Your task to perform on an android device: toggle javascript in the chrome app Image 0: 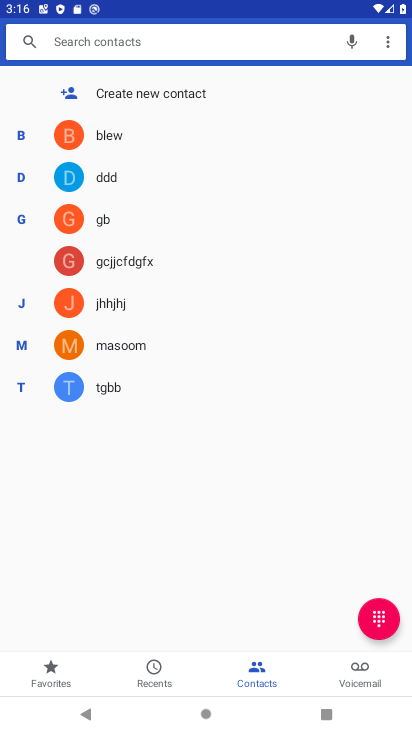
Step 0: press home button
Your task to perform on an android device: toggle javascript in the chrome app Image 1: 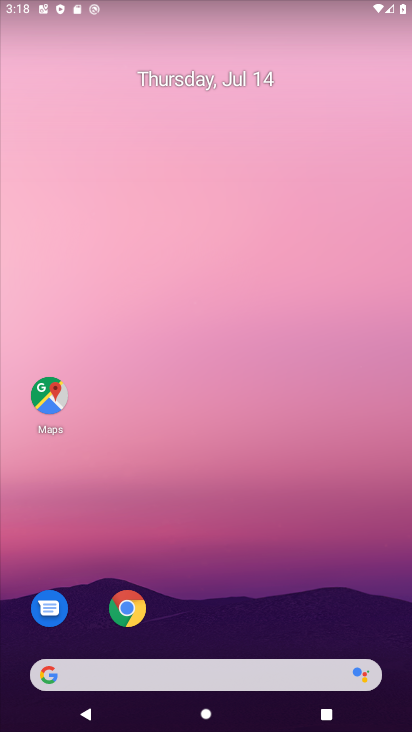
Step 1: click (104, 610)
Your task to perform on an android device: toggle javascript in the chrome app Image 2: 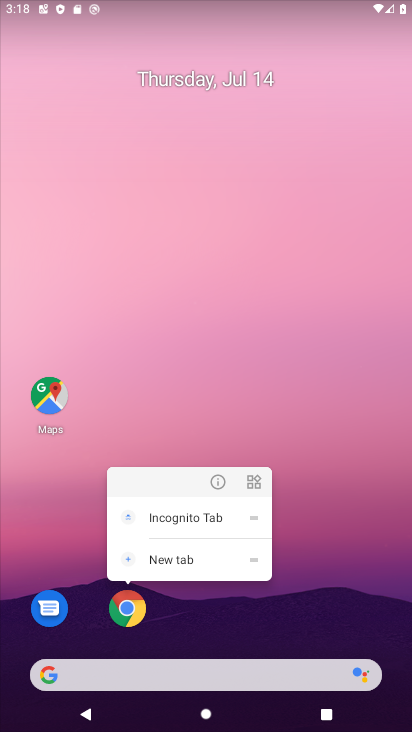
Step 2: click (122, 611)
Your task to perform on an android device: toggle javascript in the chrome app Image 3: 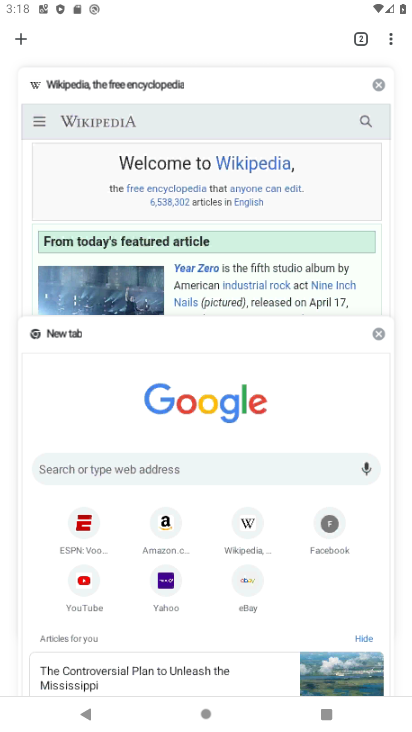
Step 3: click (389, 43)
Your task to perform on an android device: toggle javascript in the chrome app Image 4: 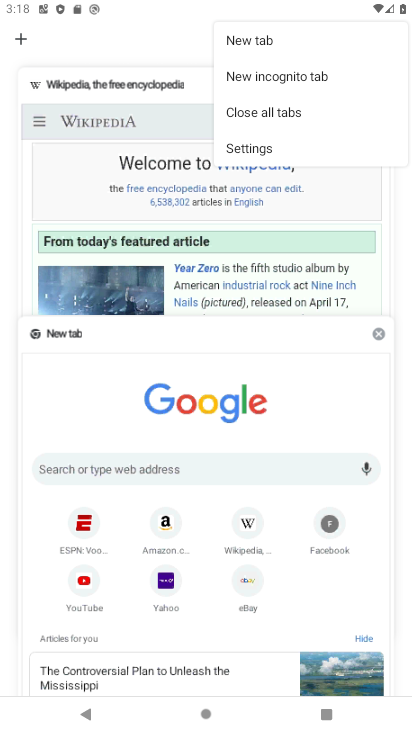
Step 4: click (269, 151)
Your task to perform on an android device: toggle javascript in the chrome app Image 5: 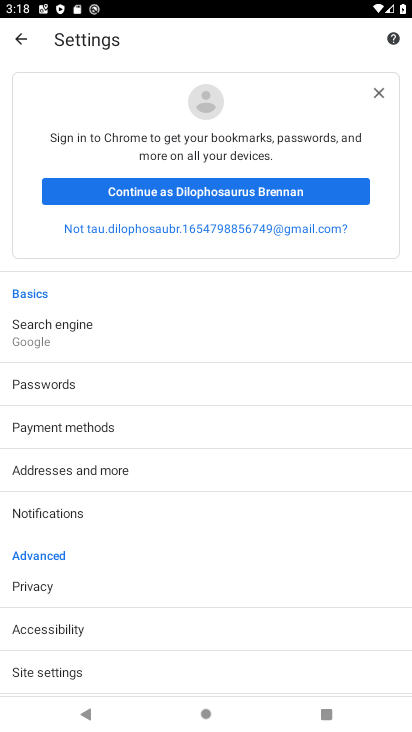
Step 5: click (24, 677)
Your task to perform on an android device: toggle javascript in the chrome app Image 6: 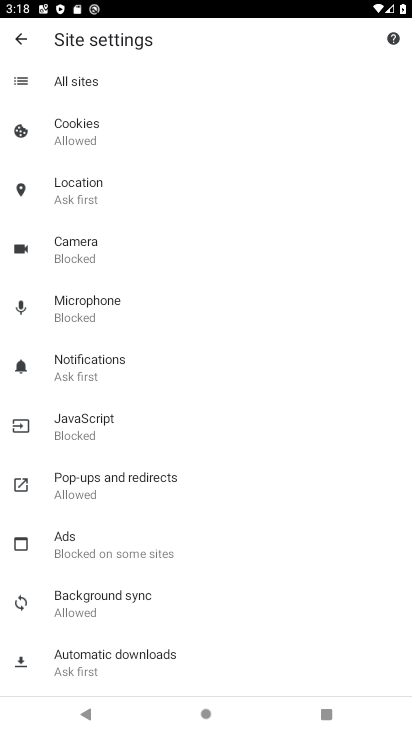
Step 6: click (86, 433)
Your task to perform on an android device: toggle javascript in the chrome app Image 7: 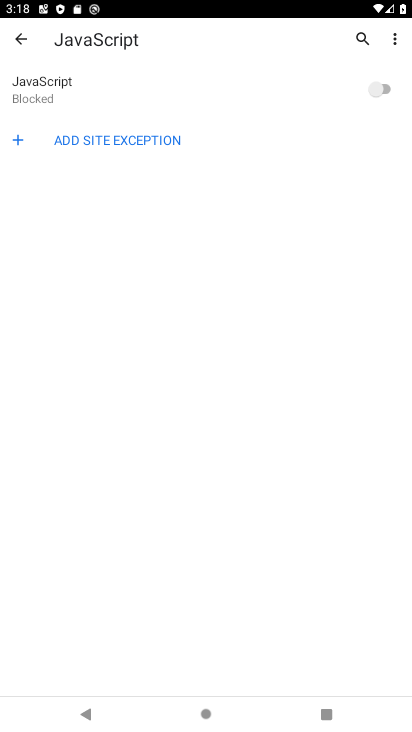
Step 7: click (376, 100)
Your task to perform on an android device: toggle javascript in the chrome app Image 8: 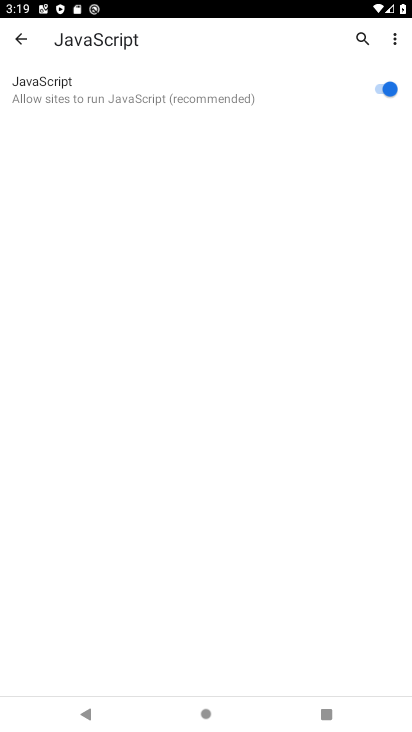
Step 8: task complete